Your task to perform on an android device: refresh tabs in the chrome app Image 0: 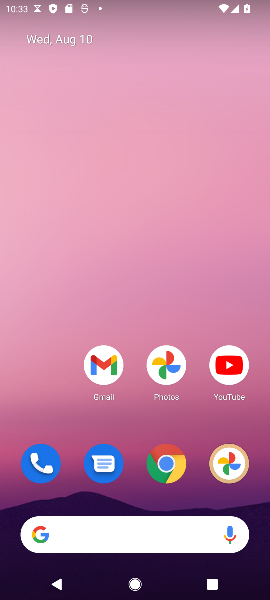
Step 0: click (167, 466)
Your task to perform on an android device: refresh tabs in the chrome app Image 1: 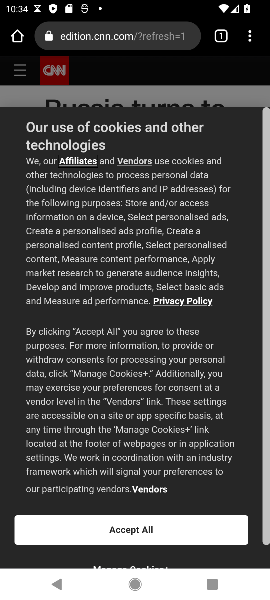
Step 1: press home button
Your task to perform on an android device: refresh tabs in the chrome app Image 2: 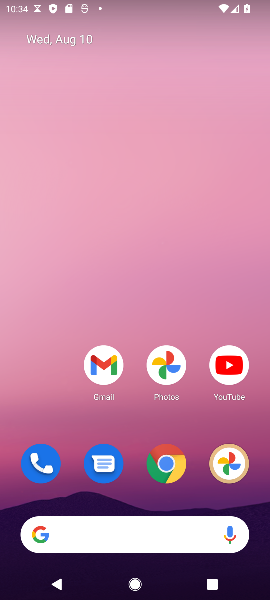
Step 2: click (170, 477)
Your task to perform on an android device: refresh tabs in the chrome app Image 3: 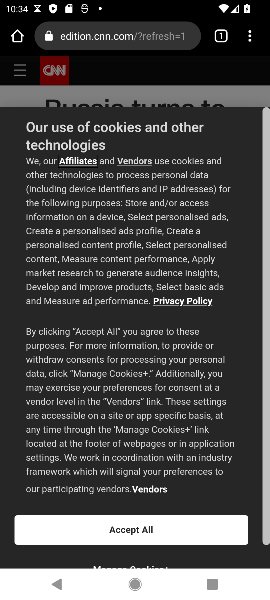
Step 3: click (256, 31)
Your task to perform on an android device: refresh tabs in the chrome app Image 4: 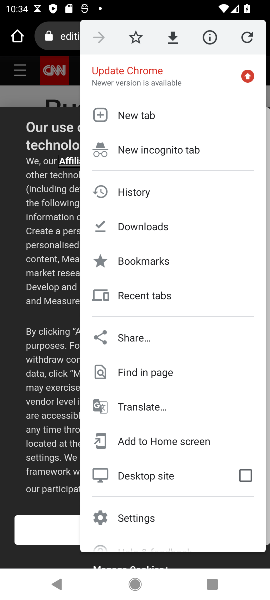
Step 4: click (239, 34)
Your task to perform on an android device: refresh tabs in the chrome app Image 5: 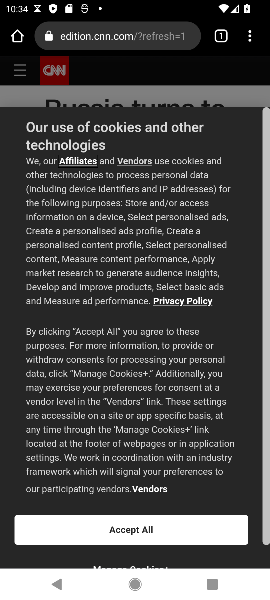
Step 5: task complete